Your task to perform on an android device: Open Chrome and go to the settings page Image 0: 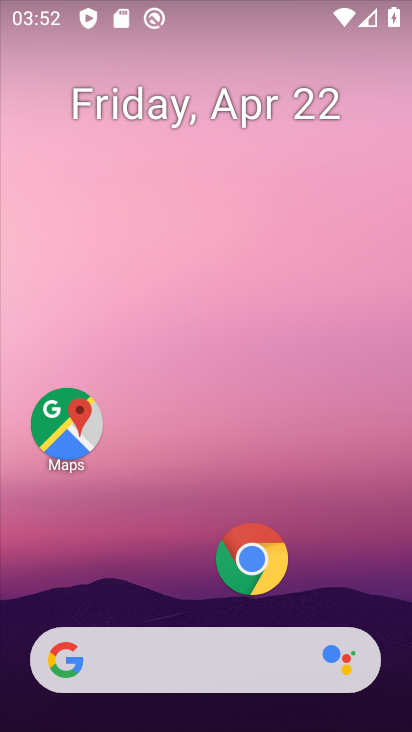
Step 0: click (247, 548)
Your task to perform on an android device: Open Chrome and go to the settings page Image 1: 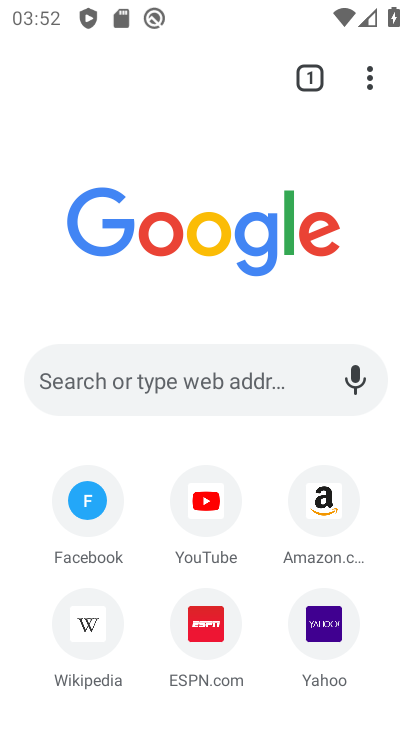
Step 1: click (371, 98)
Your task to perform on an android device: Open Chrome and go to the settings page Image 2: 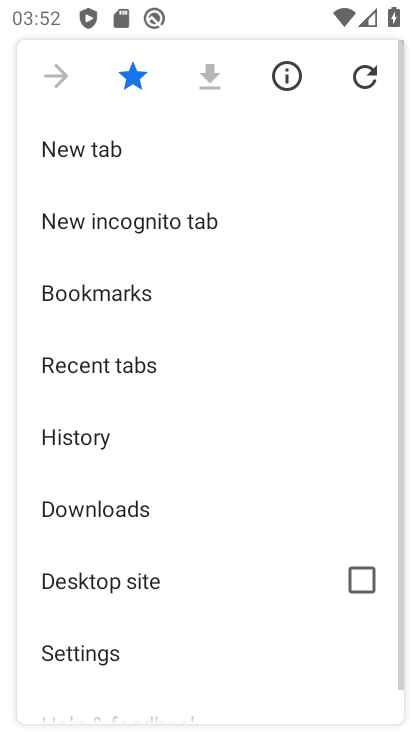
Step 2: drag from (190, 550) to (264, 163)
Your task to perform on an android device: Open Chrome and go to the settings page Image 3: 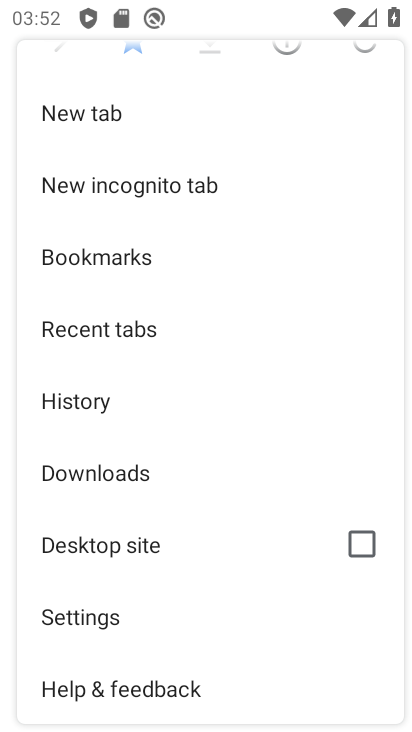
Step 3: click (79, 620)
Your task to perform on an android device: Open Chrome and go to the settings page Image 4: 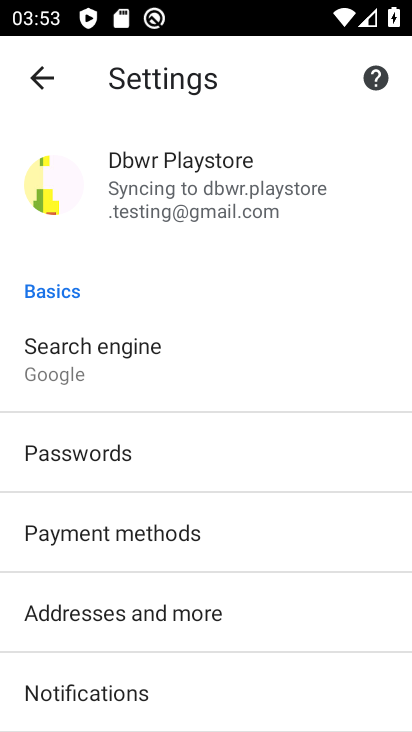
Step 4: task complete